Your task to perform on an android device: Open Yahoo.com Image 0: 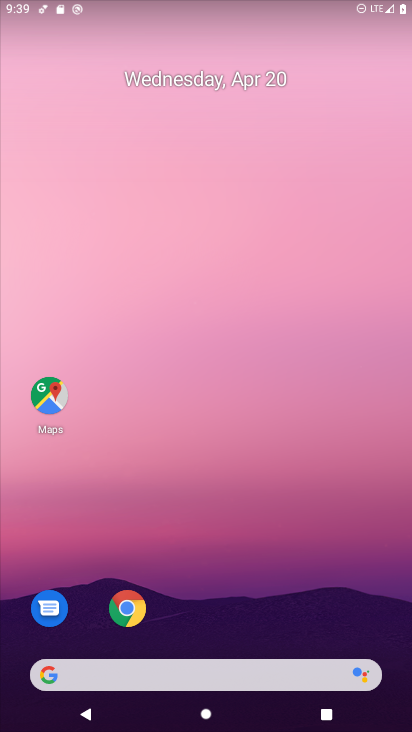
Step 0: click (136, 611)
Your task to perform on an android device: Open Yahoo.com Image 1: 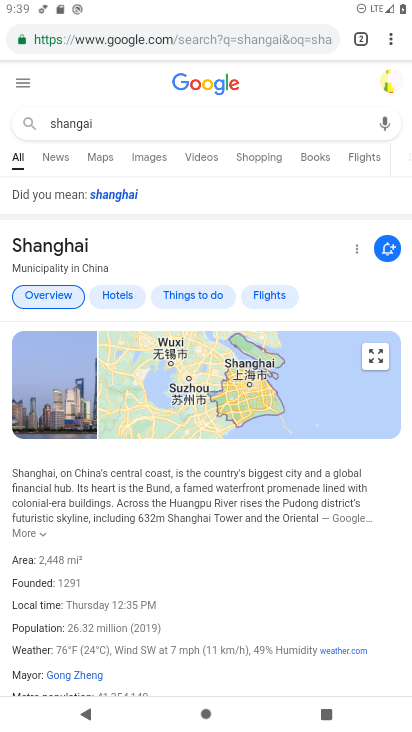
Step 1: click (239, 34)
Your task to perform on an android device: Open Yahoo.com Image 2: 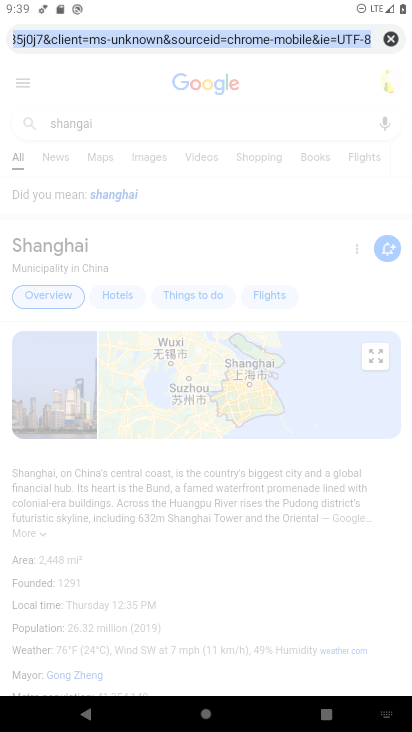
Step 2: type "yahoo.com"
Your task to perform on an android device: Open Yahoo.com Image 3: 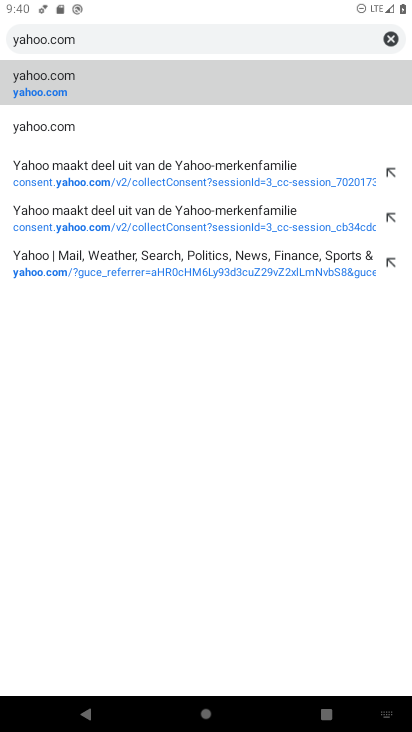
Step 3: click (147, 93)
Your task to perform on an android device: Open Yahoo.com Image 4: 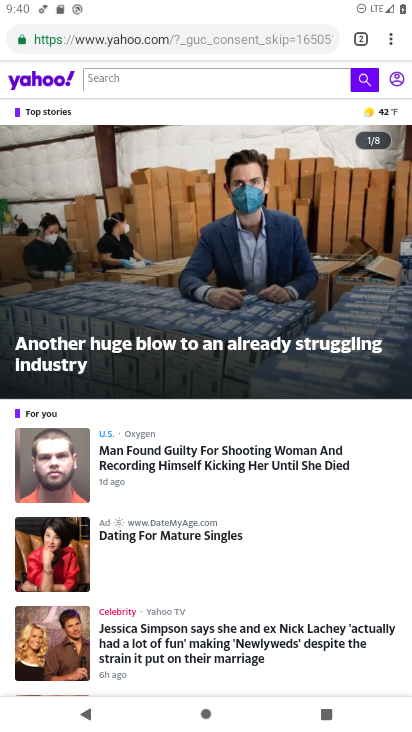
Step 4: task complete